Your task to perform on an android device: Check the news Image 0: 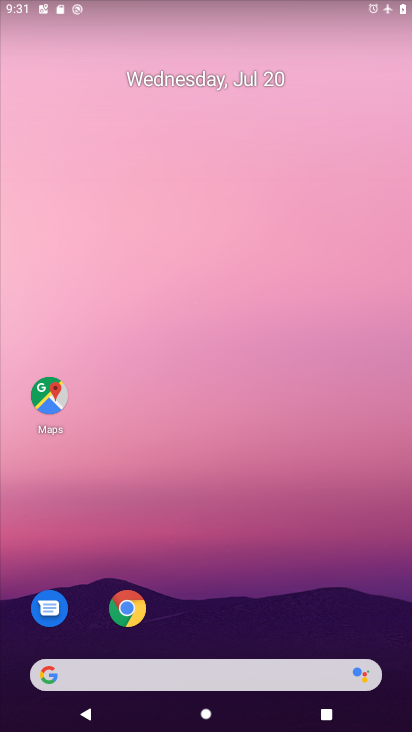
Step 0: click (121, 603)
Your task to perform on an android device: Check the news Image 1: 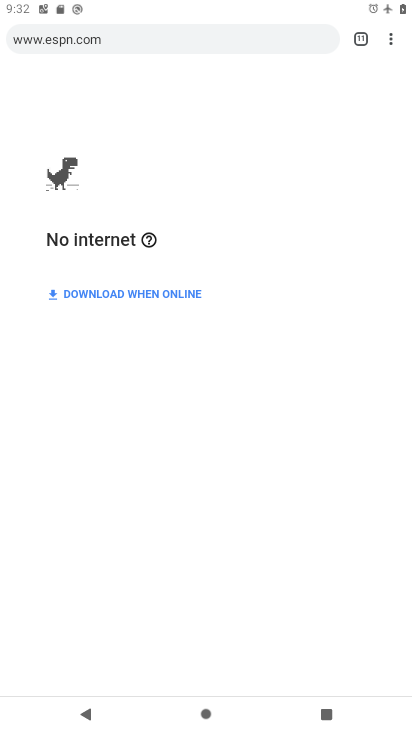
Step 1: click (392, 37)
Your task to perform on an android device: Check the news Image 2: 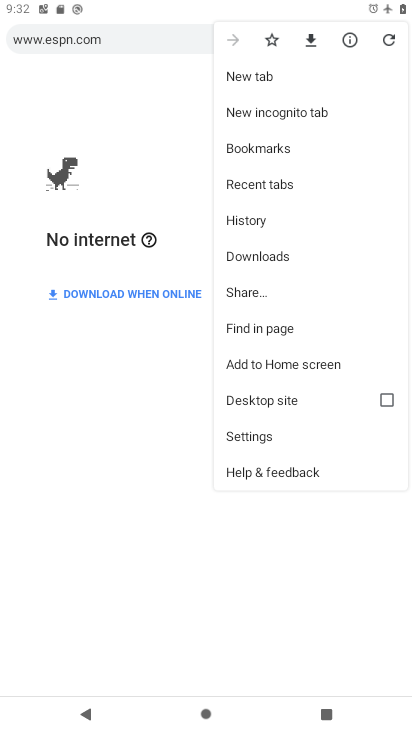
Step 2: click (255, 72)
Your task to perform on an android device: Check the news Image 3: 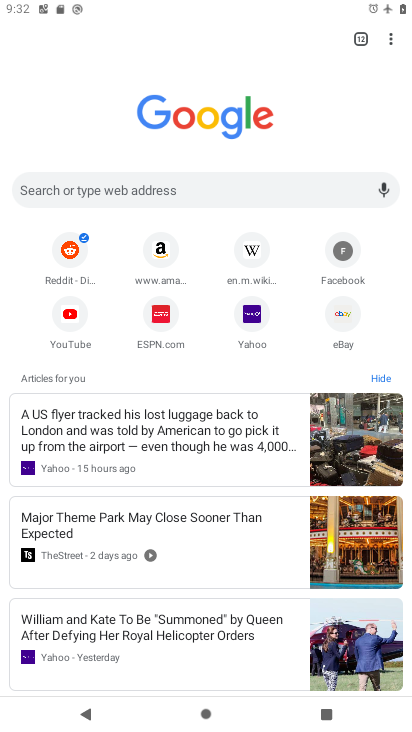
Step 3: click (259, 181)
Your task to perform on an android device: Check the news Image 4: 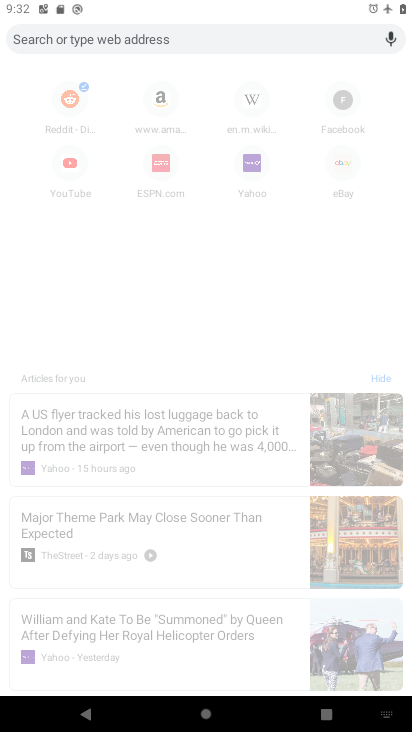
Step 4: type "Check the news "
Your task to perform on an android device: Check the news Image 5: 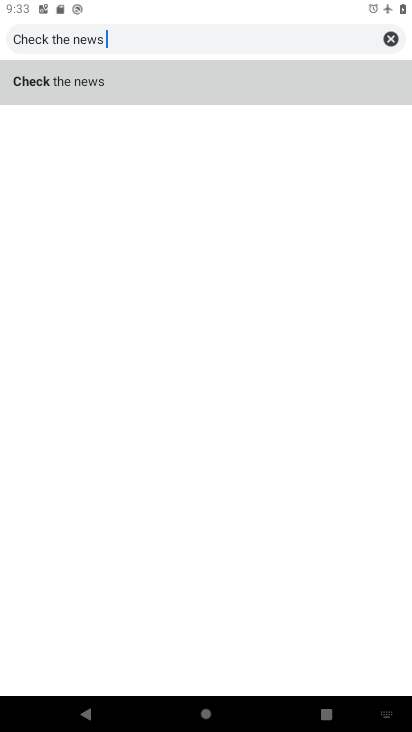
Step 5: click (160, 89)
Your task to perform on an android device: Check the news Image 6: 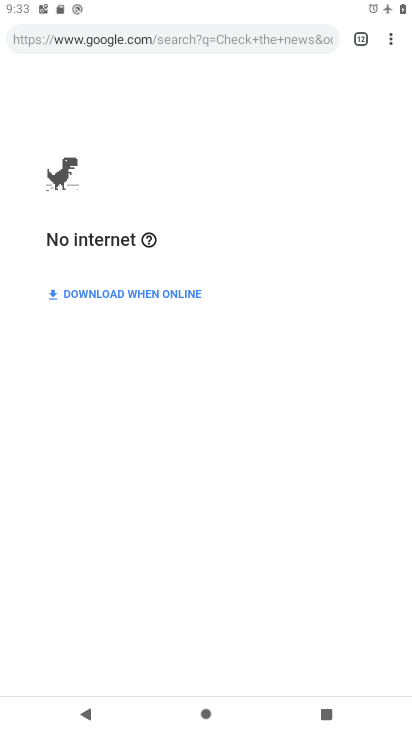
Step 6: task complete